Your task to perform on an android device: Show me productivity apps on the Play Store Image 0: 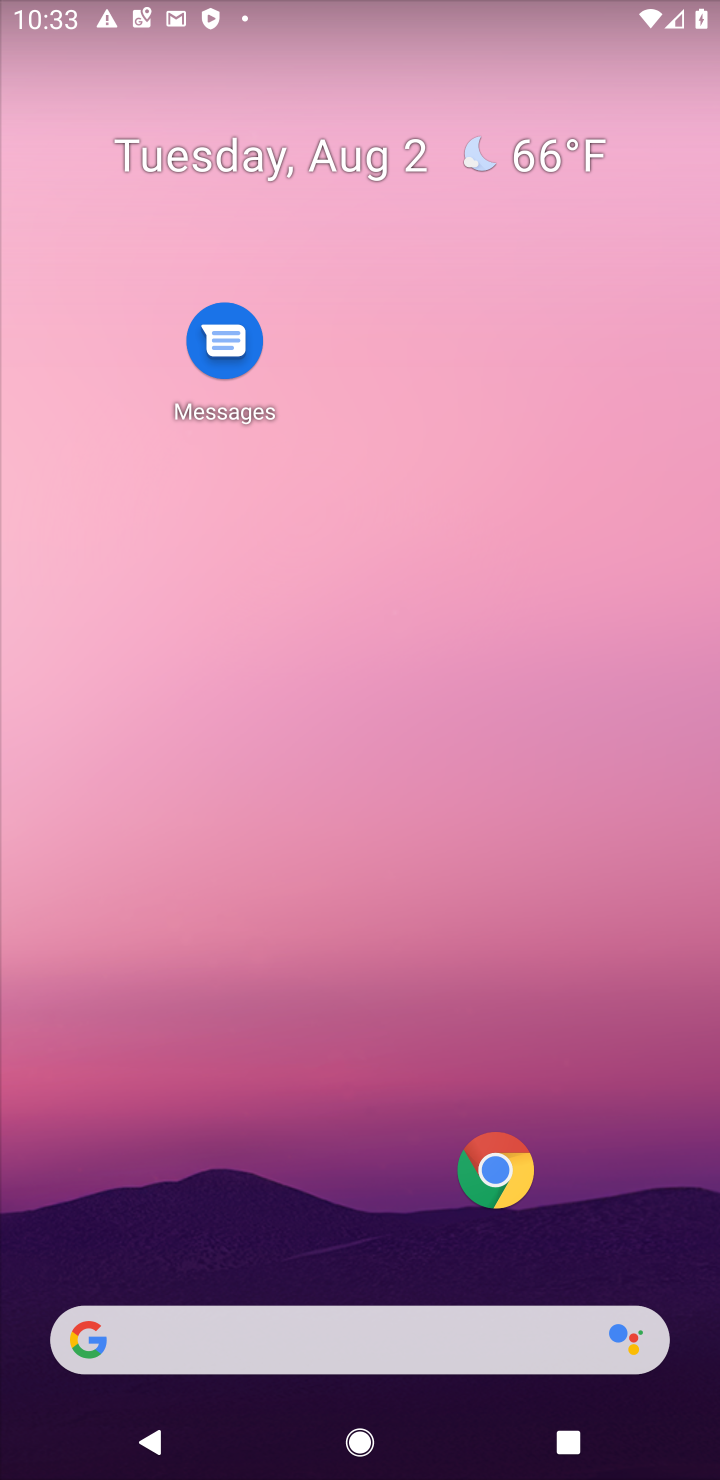
Step 0: drag from (375, 1064) to (403, 705)
Your task to perform on an android device: Show me productivity apps on the Play Store Image 1: 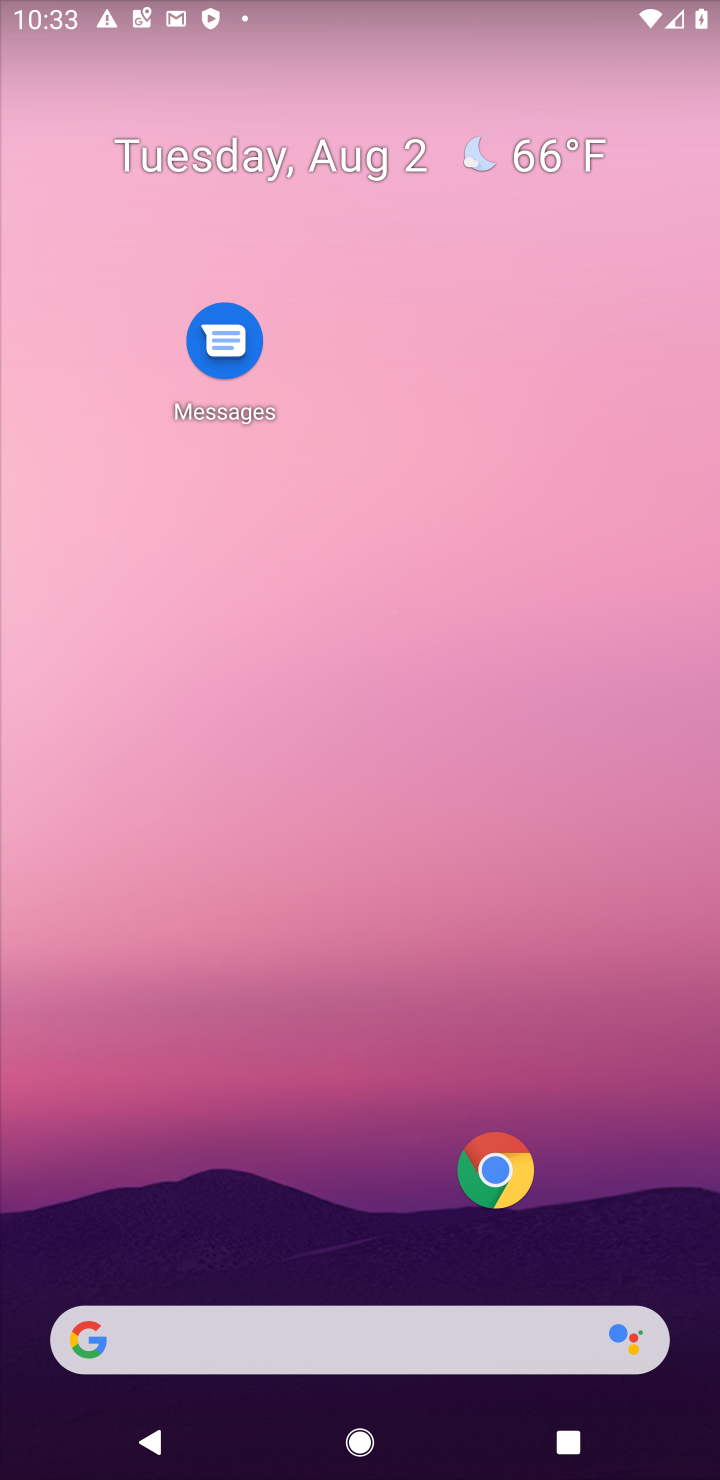
Step 1: drag from (477, 586) to (493, 332)
Your task to perform on an android device: Show me productivity apps on the Play Store Image 2: 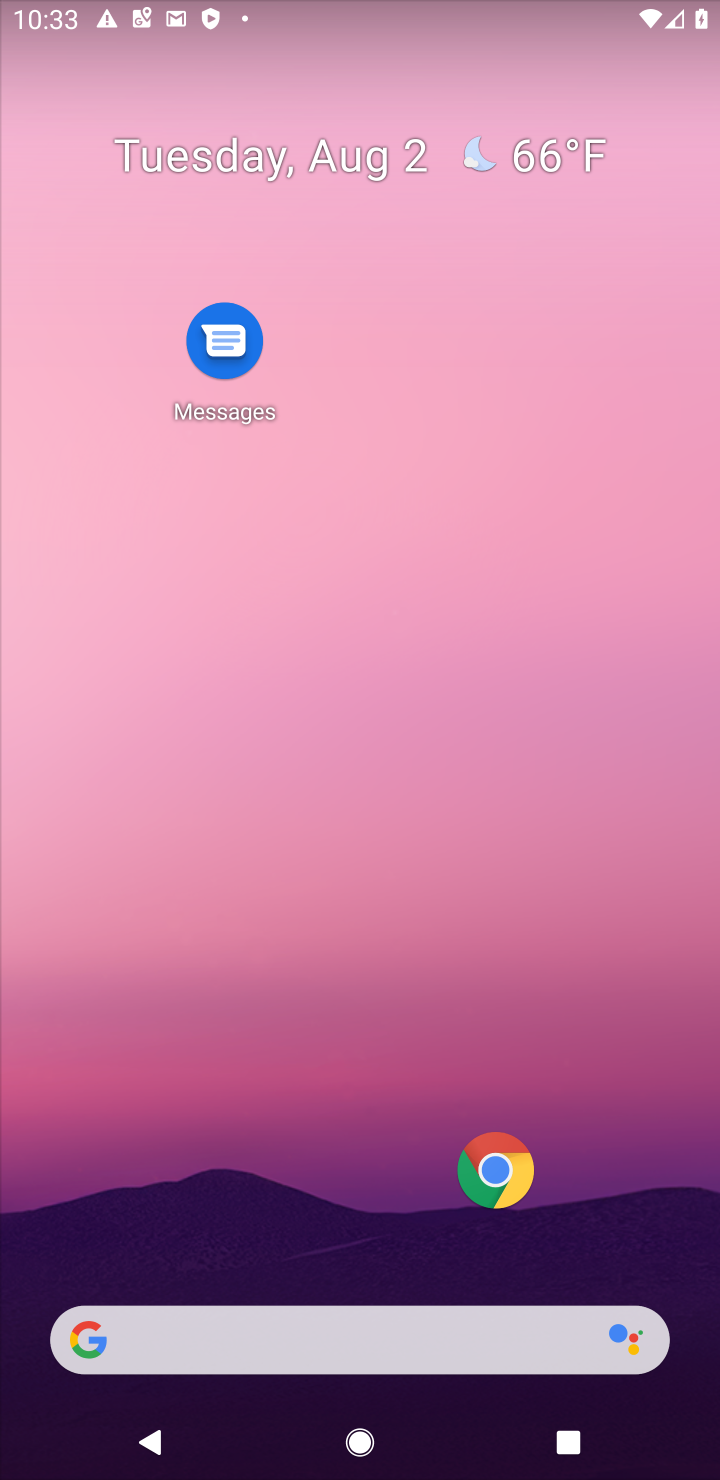
Step 2: drag from (402, 990) to (536, 217)
Your task to perform on an android device: Show me productivity apps on the Play Store Image 3: 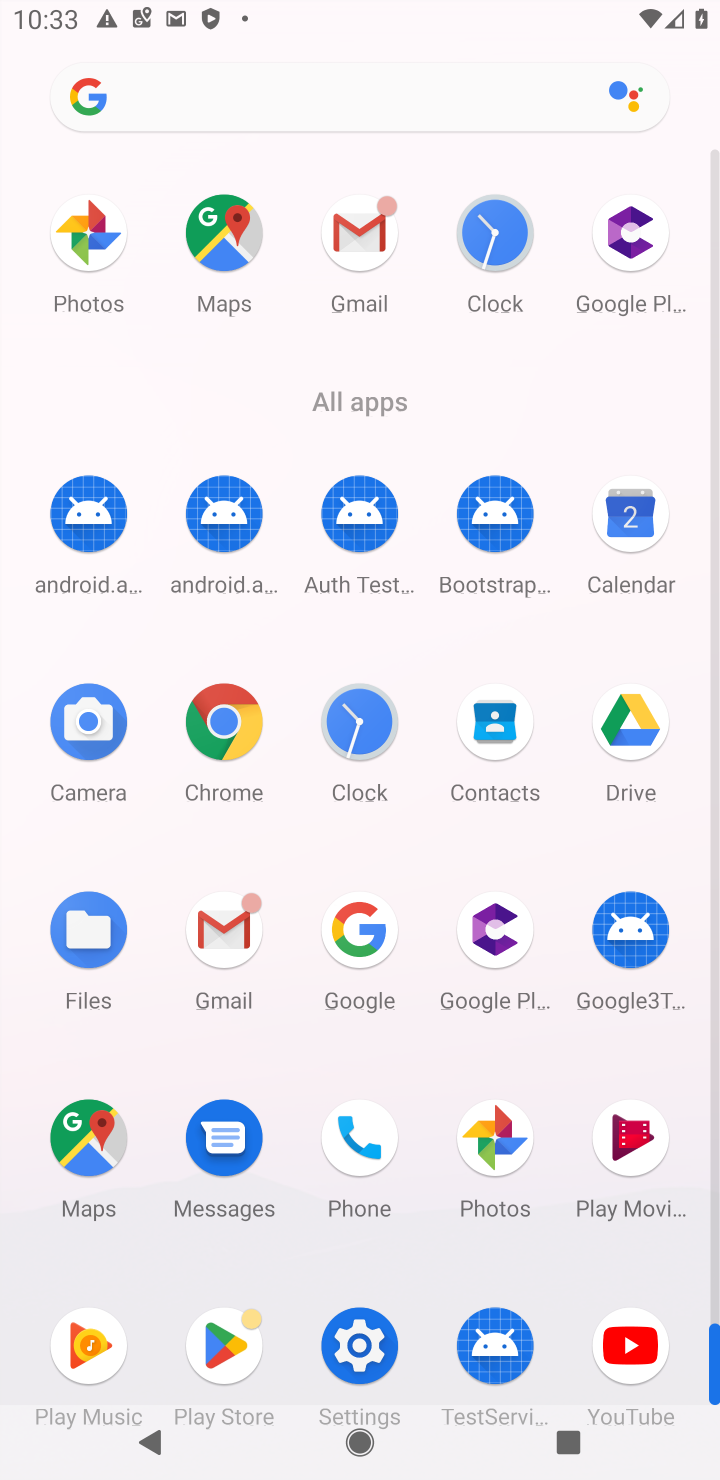
Step 3: click (367, 1334)
Your task to perform on an android device: Show me productivity apps on the Play Store Image 4: 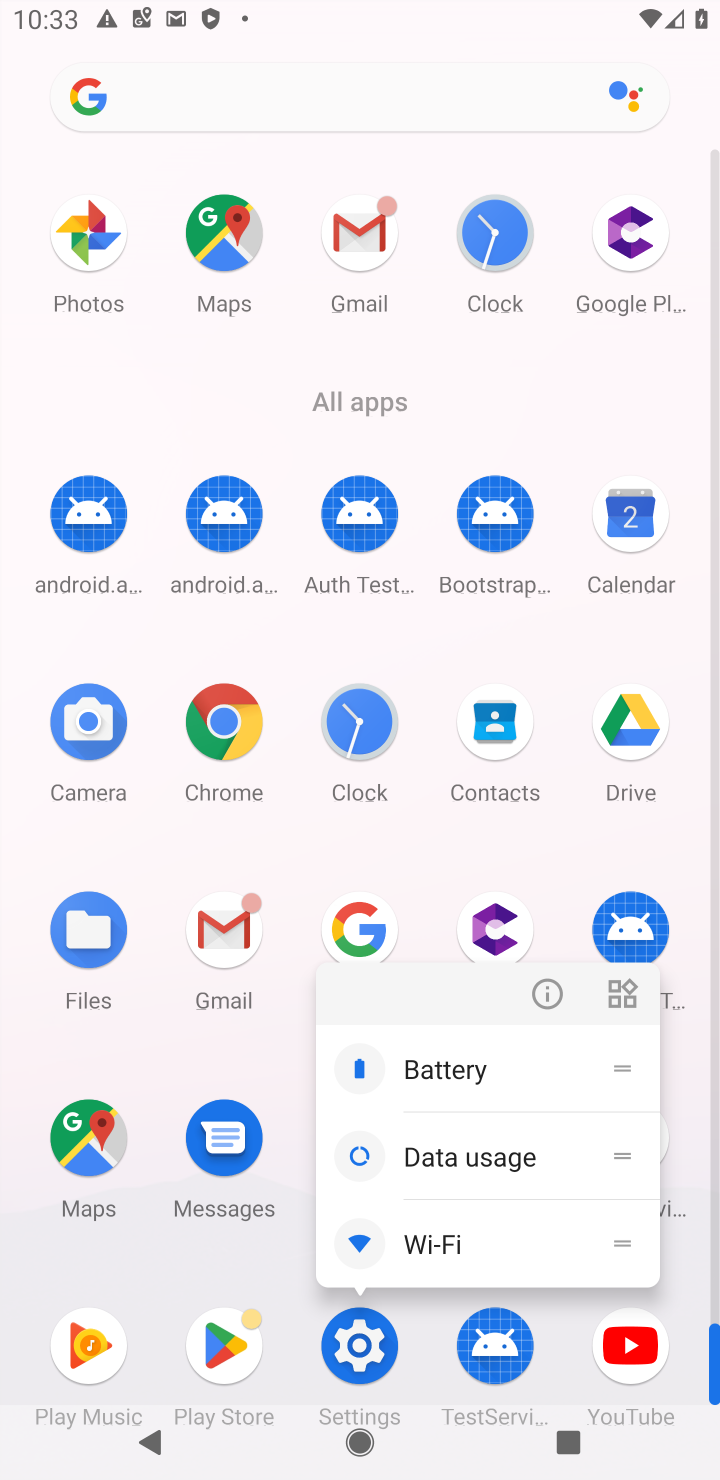
Step 4: click (225, 1329)
Your task to perform on an android device: Show me productivity apps on the Play Store Image 5: 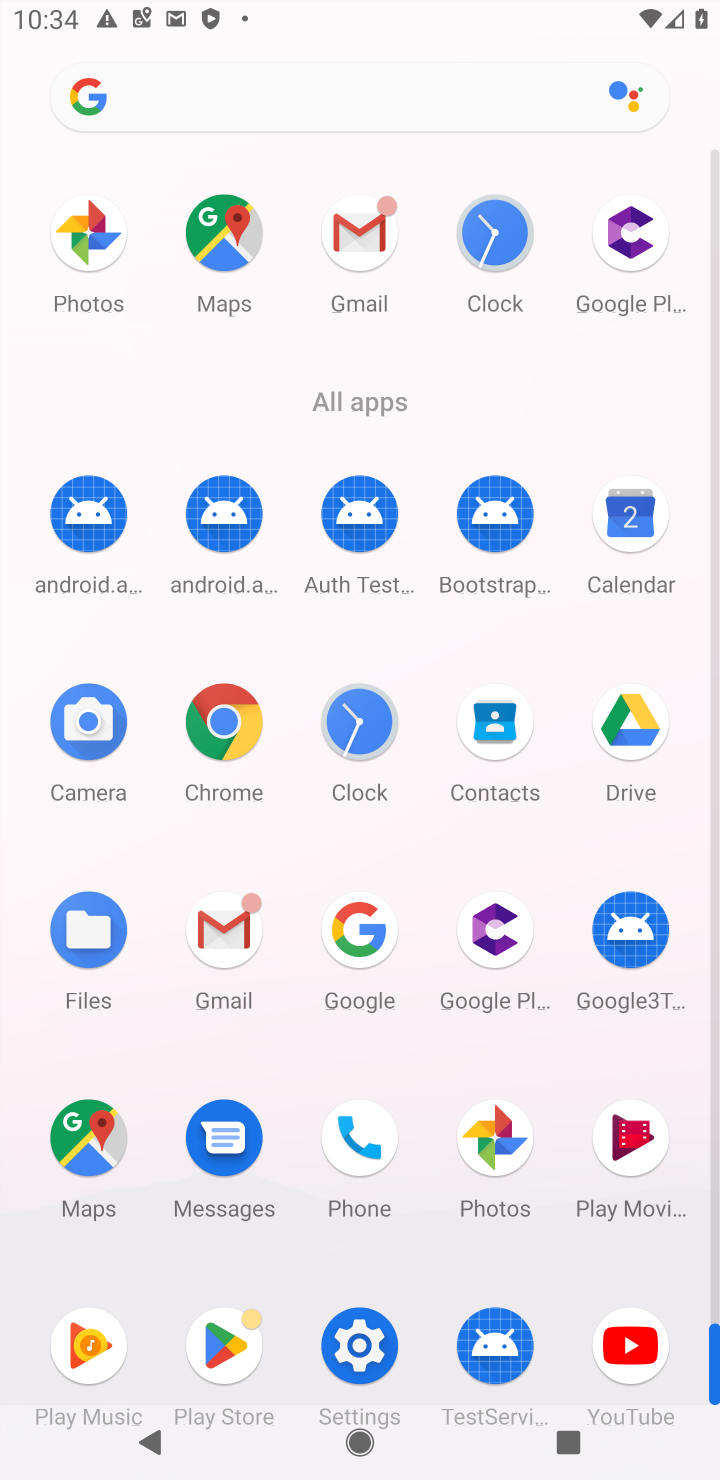
Step 5: click (219, 1332)
Your task to perform on an android device: Show me productivity apps on the Play Store Image 6: 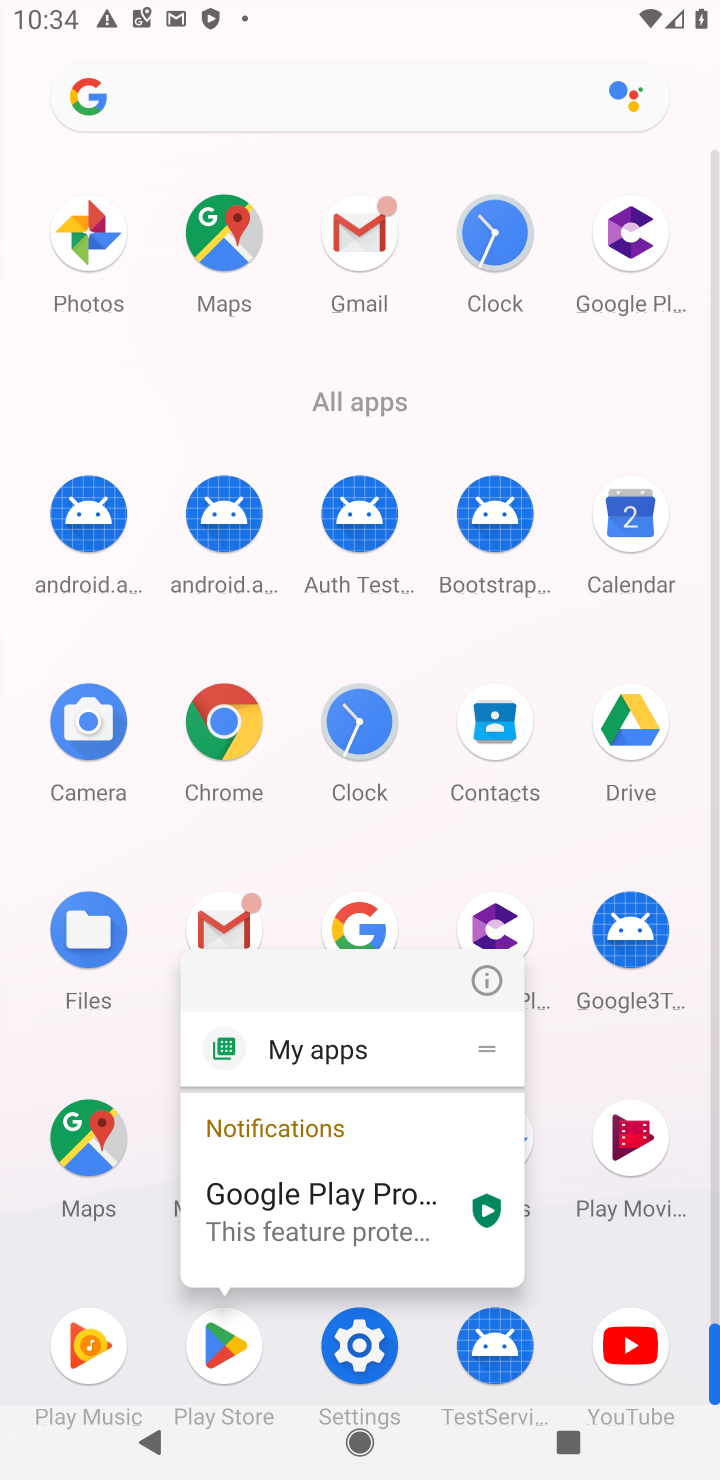
Step 6: click (481, 980)
Your task to perform on an android device: Show me productivity apps on the Play Store Image 7: 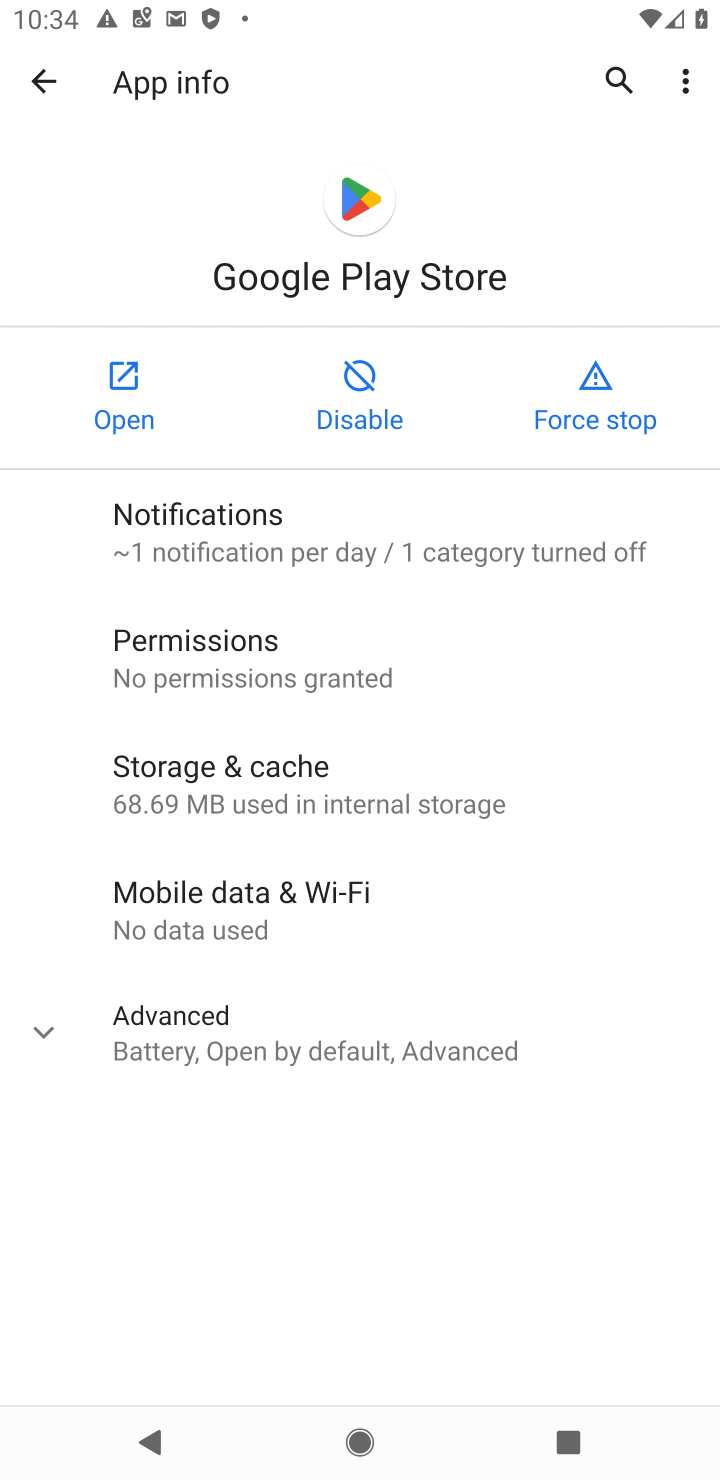
Step 7: click (117, 384)
Your task to perform on an android device: Show me productivity apps on the Play Store Image 8: 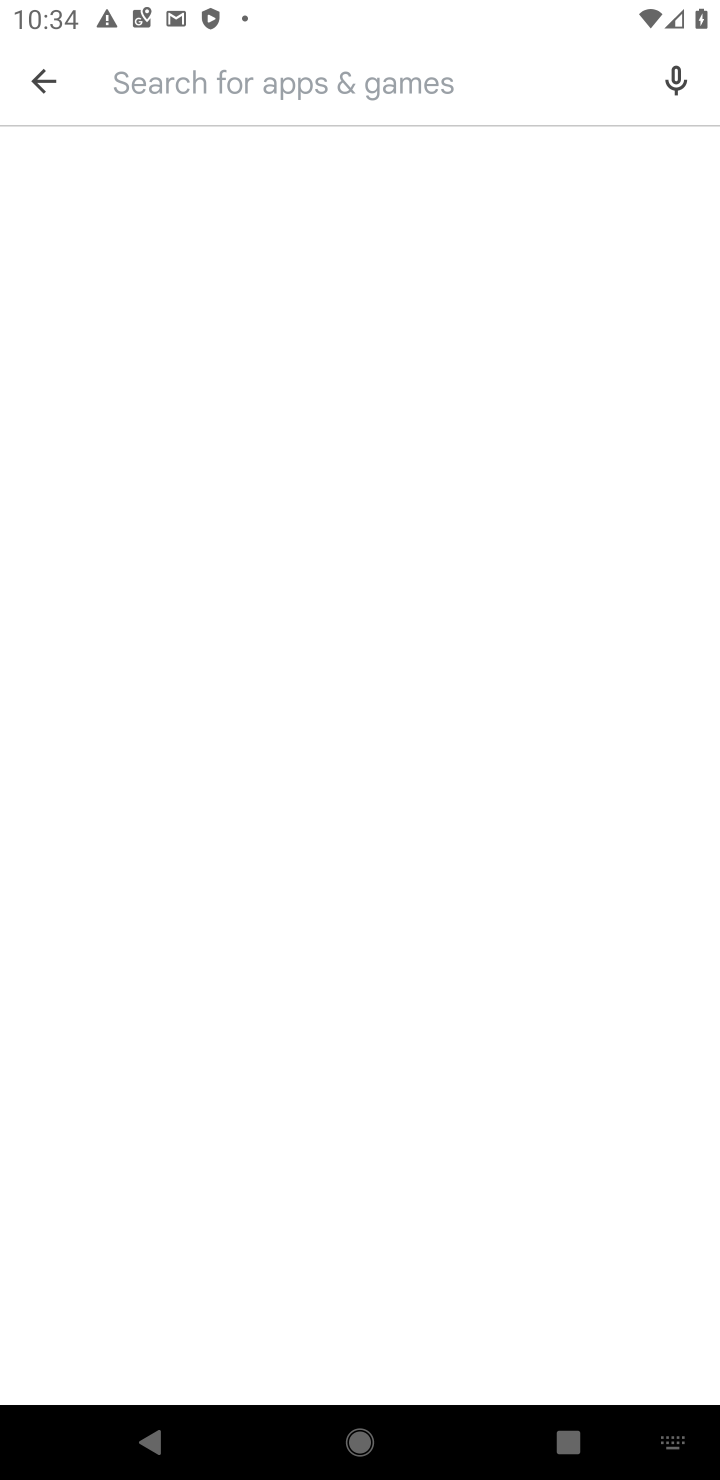
Step 8: click (13, 85)
Your task to perform on an android device: Show me productivity apps on the Play Store Image 9: 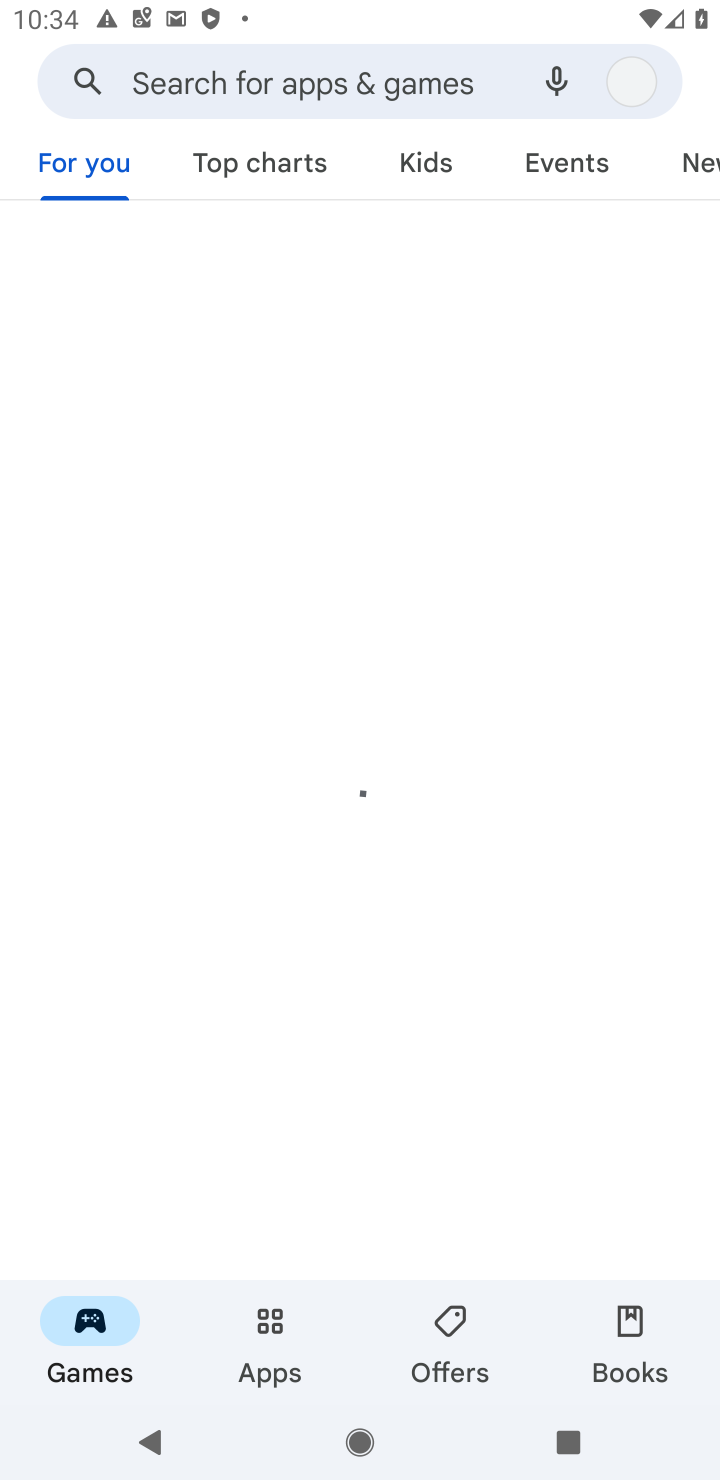
Step 9: drag from (449, 974) to (638, 204)
Your task to perform on an android device: Show me productivity apps on the Play Store Image 10: 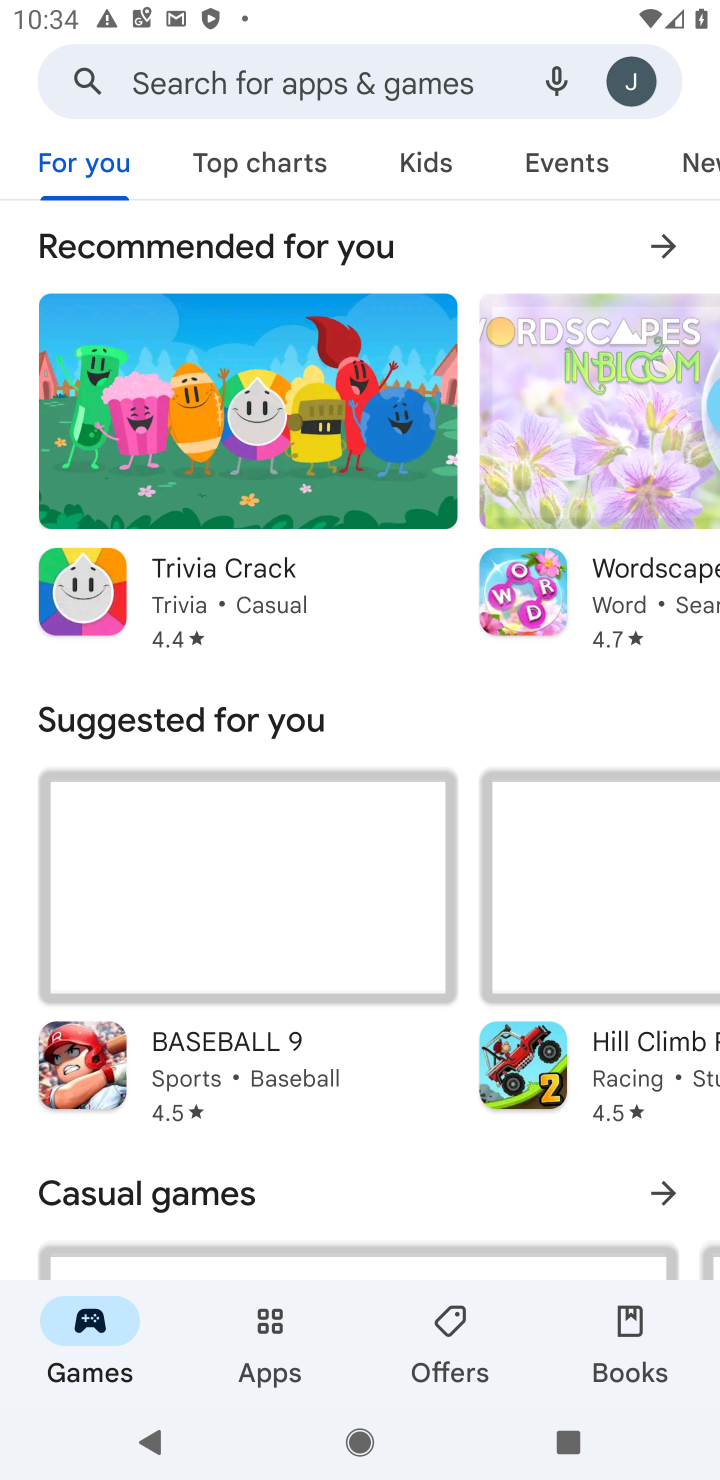
Step 10: drag from (295, 990) to (300, 1186)
Your task to perform on an android device: Show me productivity apps on the Play Store Image 11: 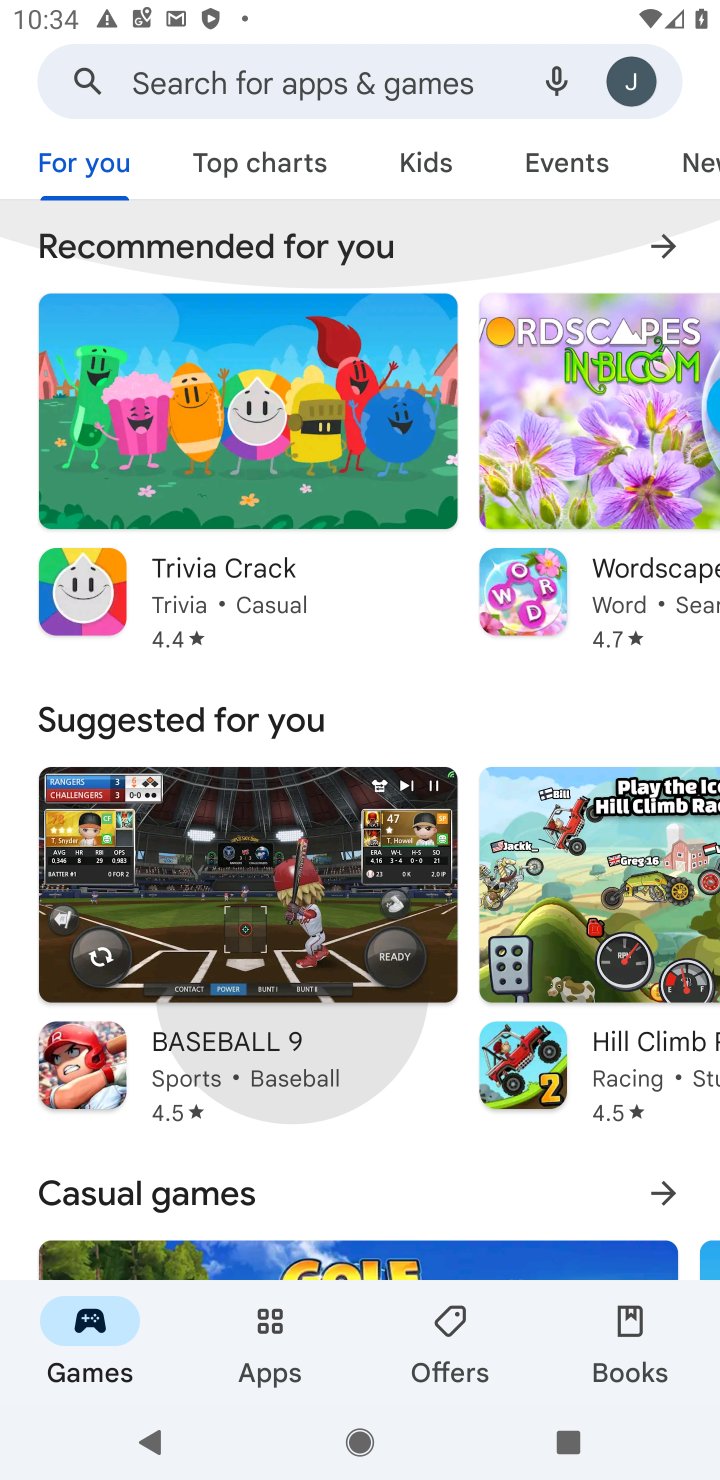
Step 11: drag from (271, 1131) to (361, 328)
Your task to perform on an android device: Show me productivity apps on the Play Store Image 12: 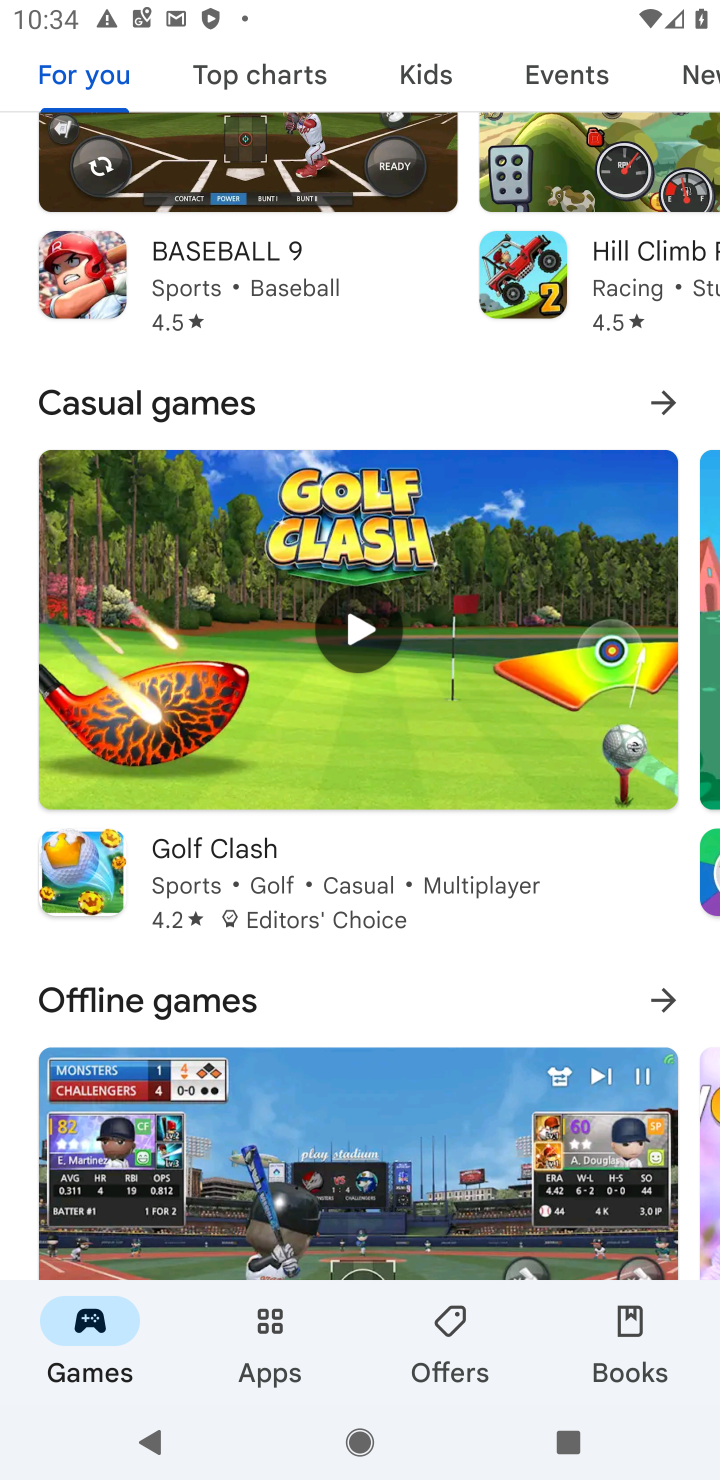
Step 12: drag from (387, 1014) to (576, 313)
Your task to perform on an android device: Show me productivity apps on the Play Store Image 13: 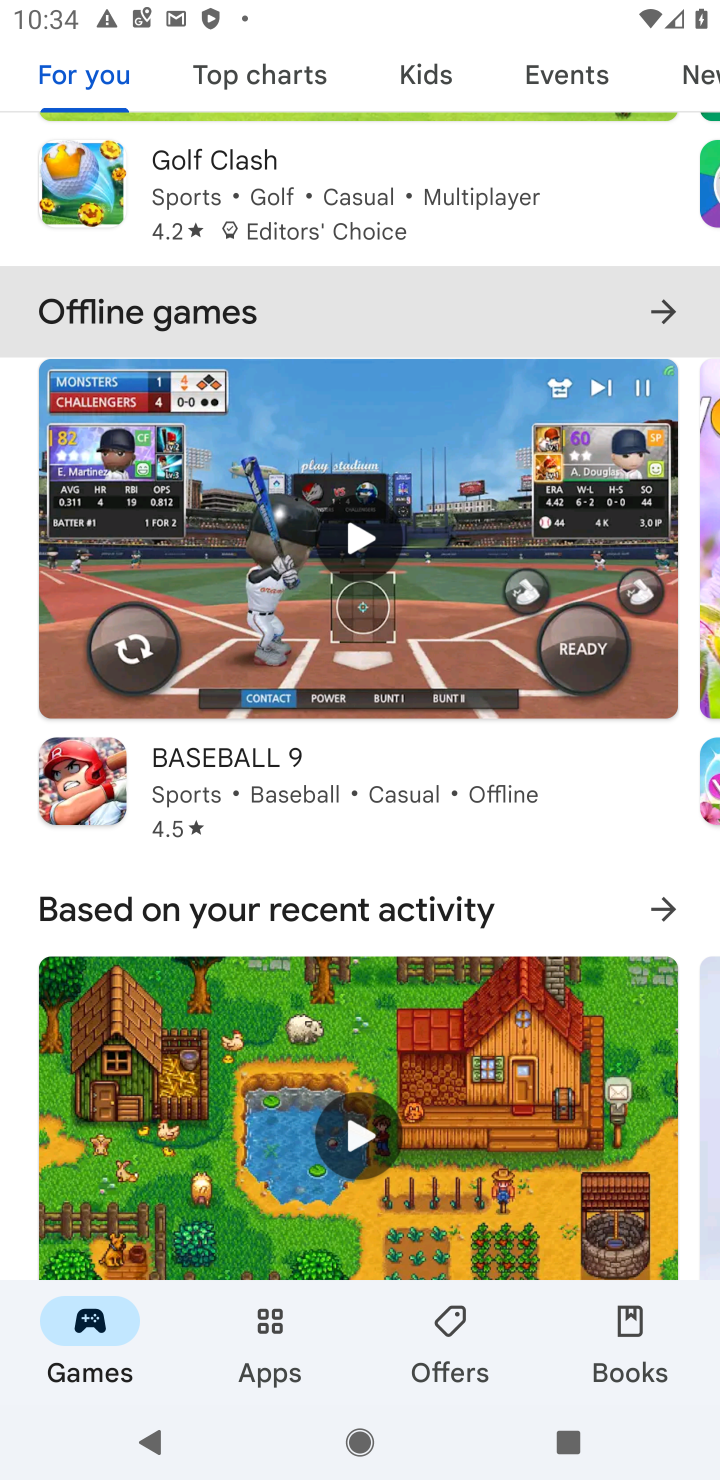
Step 13: click (682, 399)
Your task to perform on an android device: Show me productivity apps on the Play Store Image 14: 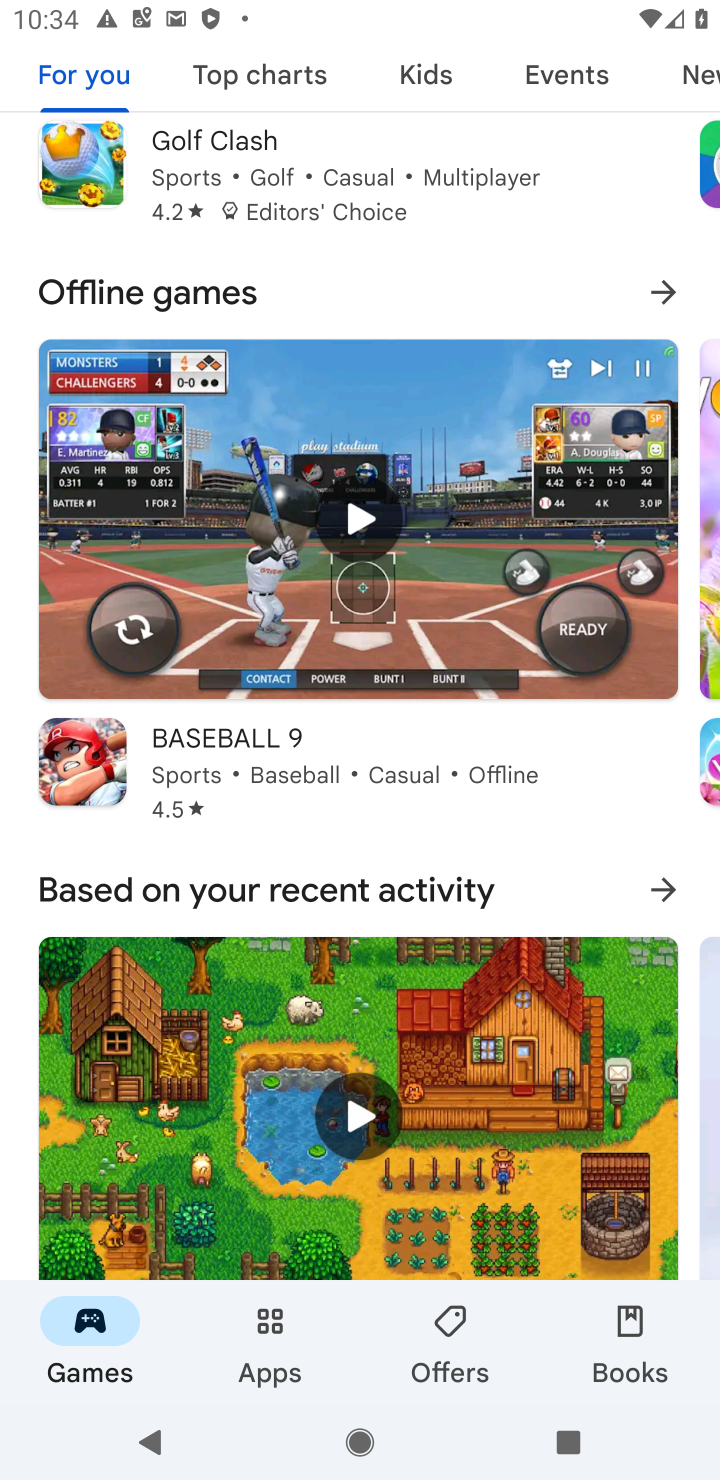
Step 14: task complete